Your task to perform on an android device: toggle translation in the chrome app Image 0: 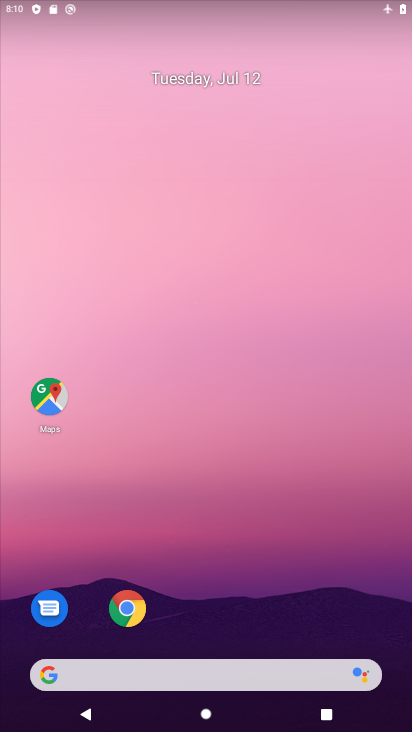
Step 0: drag from (198, 630) to (146, 121)
Your task to perform on an android device: toggle translation in the chrome app Image 1: 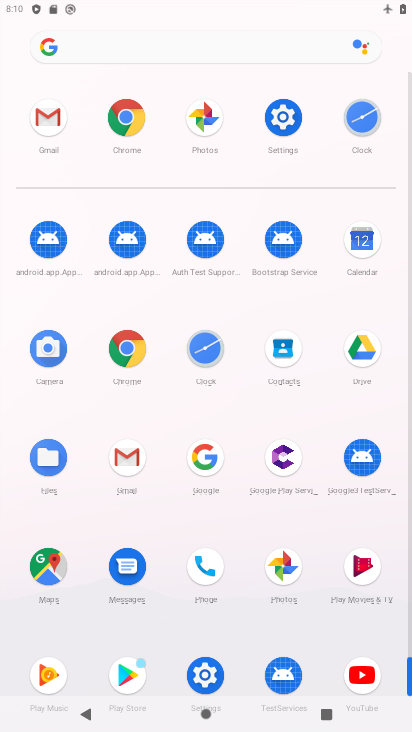
Step 1: click (135, 123)
Your task to perform on an android device: toggle translation in the chrome app Image 2: 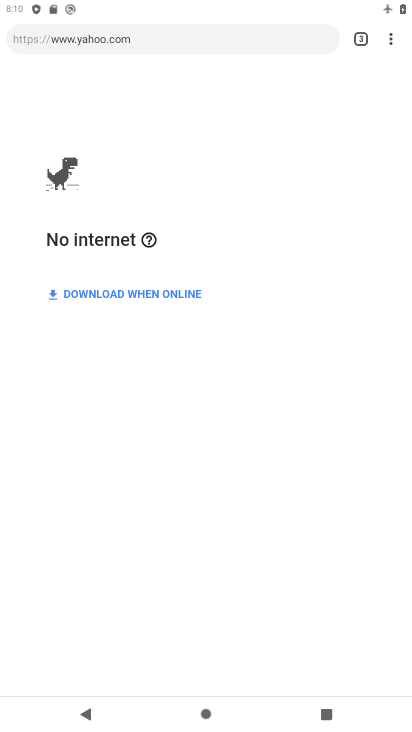
Step 2: drag from (392, 42) to (259, 477)
Your task to perform on an android device: toggle translation in the chrome app Image 3: 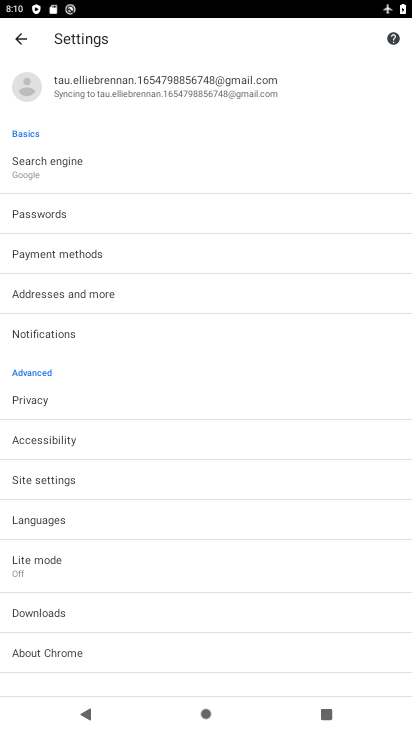
Step 3: click (81, 534)
Your task to perform on an android device: toggle translation in the chrome app Image 4: 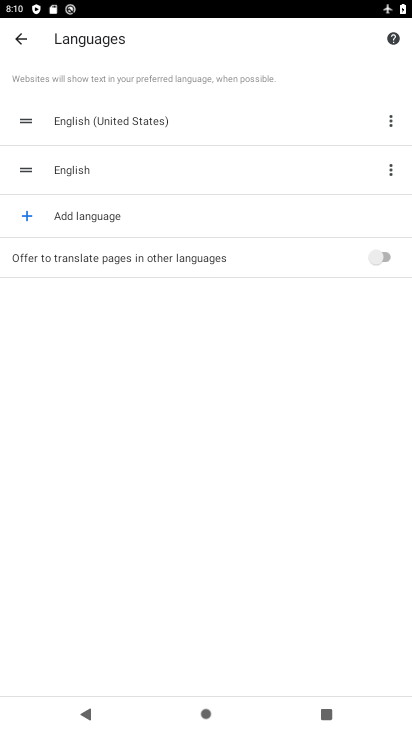
Step 4: click (382, 252)
Your task to perform on an android device: toggle translation in the chrome app Image 5: 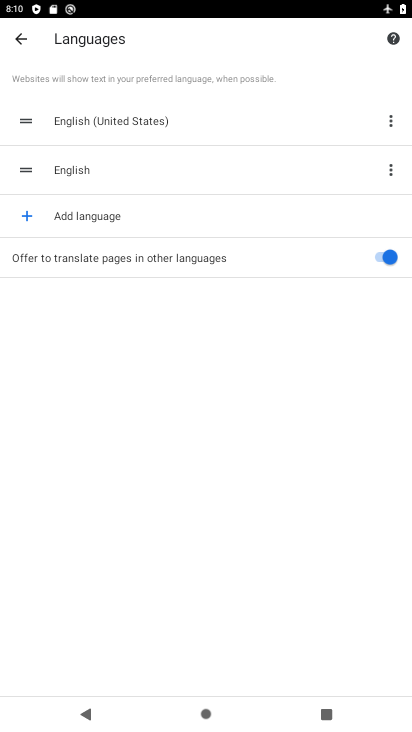
Step 5: task complete